Your task to perform on an android device: Check the weather Image 0: 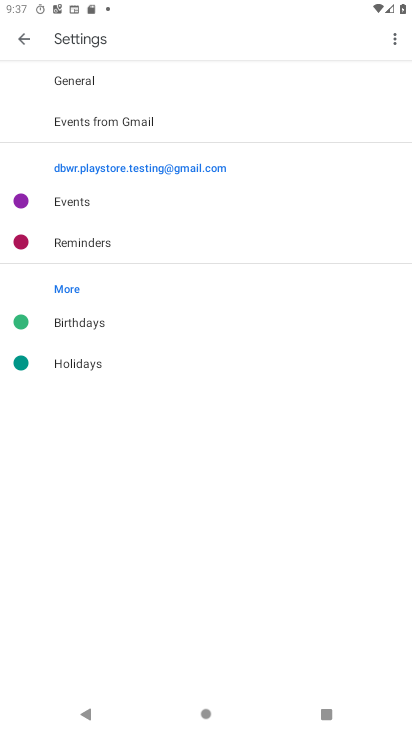
Step 0: press home button
Your task to perform on an android device: Check the weather Image 1: 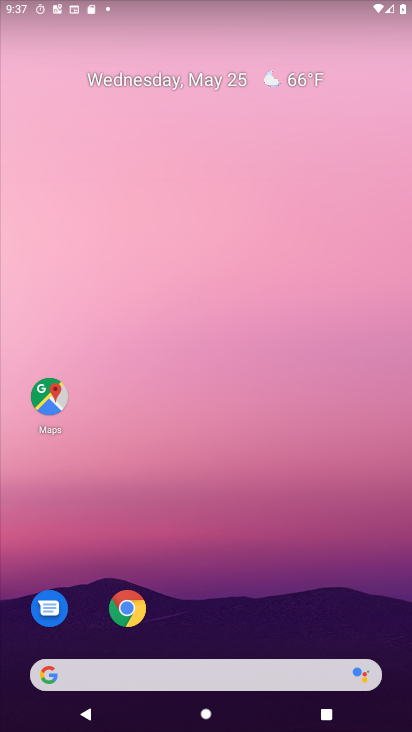
Step 1: click (268, 77)
Your task to perform on an android device: Check the weather Image 2: 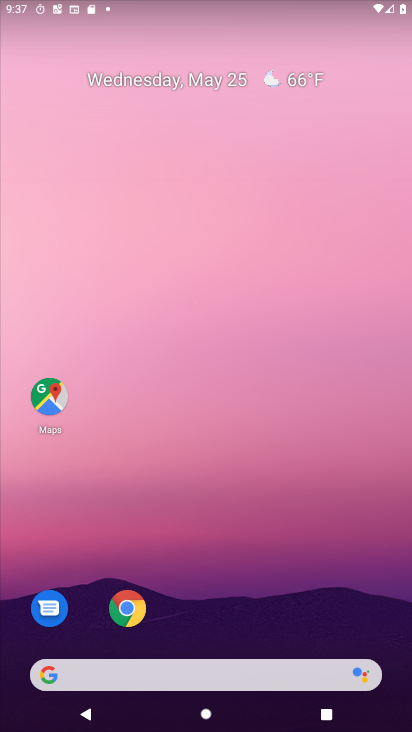
Step 2: click (274, 75)
Your task to perform on an android device: Check the weather Image 3: 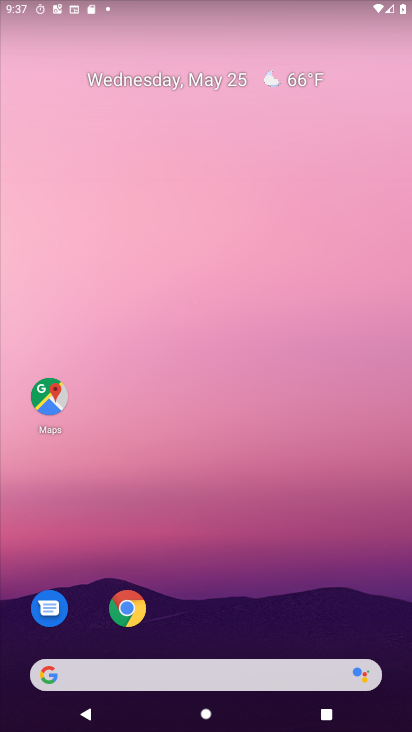
Step 3: click (272, 79)
Your task to perform on an android device: Check the weather Image 4: 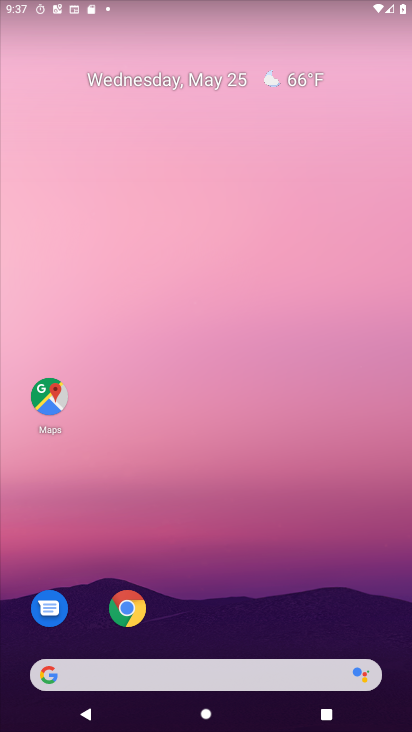
Step 4: drag from (176, 722) to (178, 27)
Your task to perform on an android device: Check the weather Image 5: 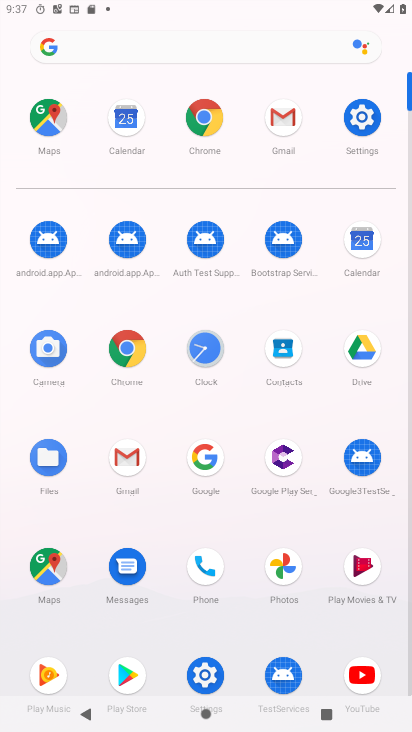
Step 5: click (207, 458)
Your task to perform on an android device: Check the weather Image 6: 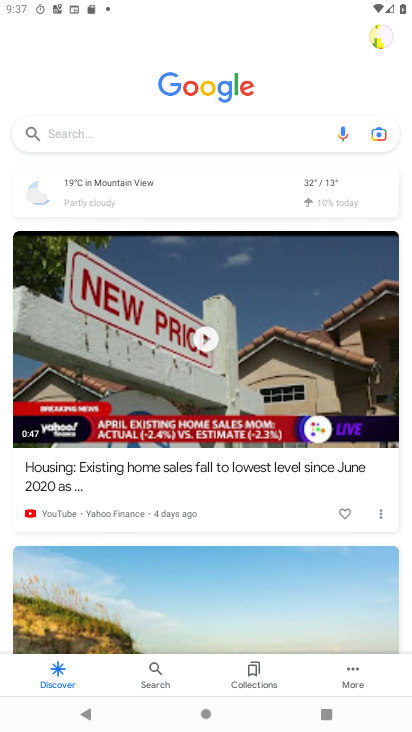
Step 6: click (39, 193)
Your task to perform on an android device: Check the weather Image 7: 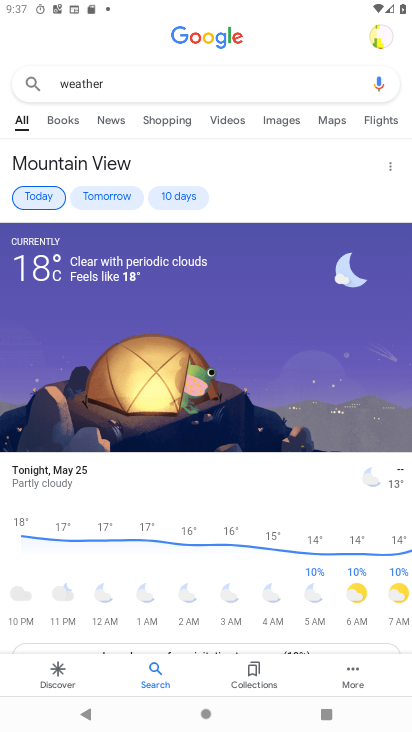
Step 7: click (39, 198)
Your task to perform on an android device: Check the weather Image 8: 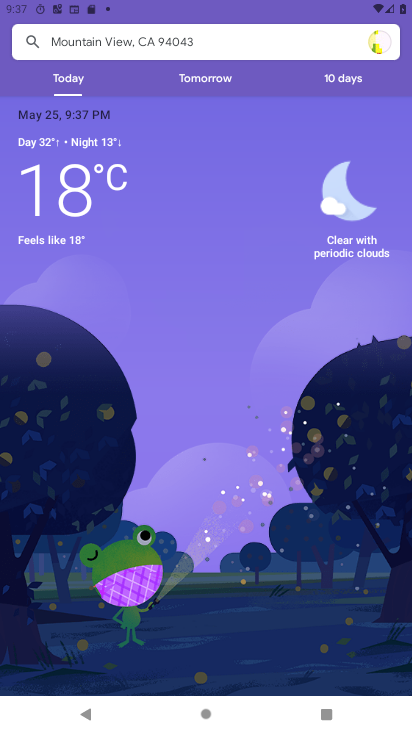
Step 8: task complete